Your task to perform on an android device: turn on sleep mode Image 0: 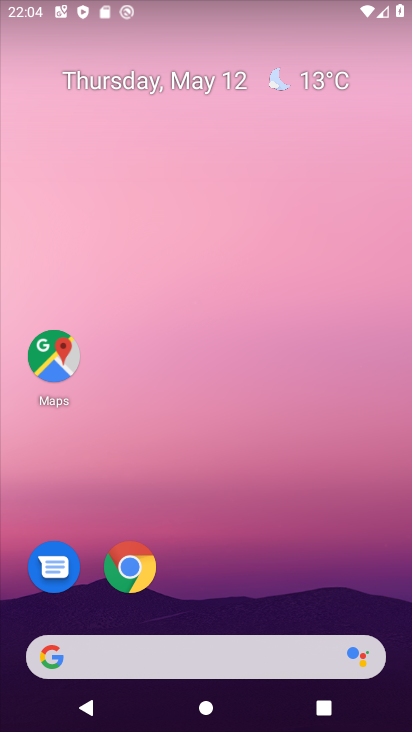
Step 0: click (227, 123)
Your task to perform on an android device: turn on sleep mode Image 1: 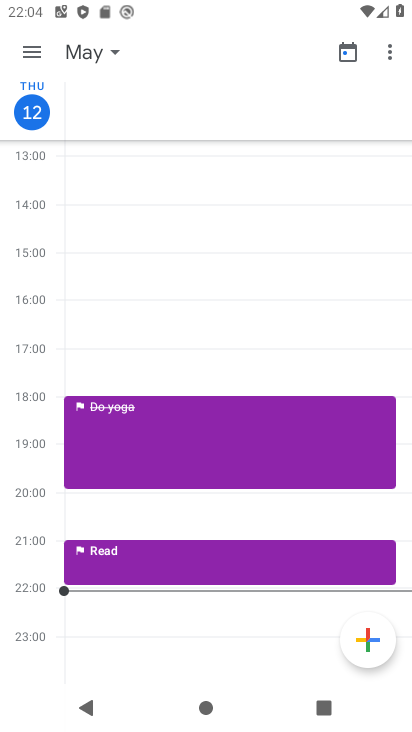
Step 1: press home button
Your task to perform on an android device: turn on sleep mode Image 2: 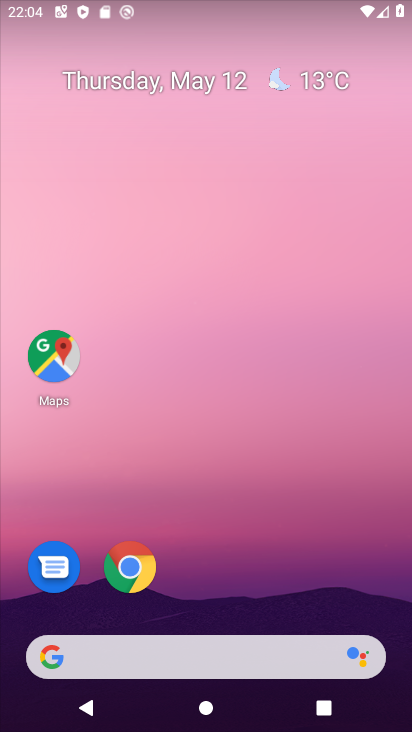
Step 2: drag from (239, 600) to (251, 47)
Your task to perform on an android device: turn on sleep mode Image 3: 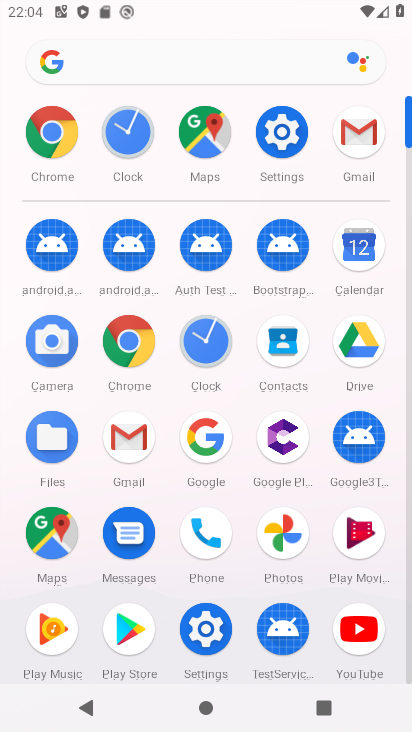
Step 3: click (290, 121)
Your task to perform on an android device: turn on sleep mode Image 4: 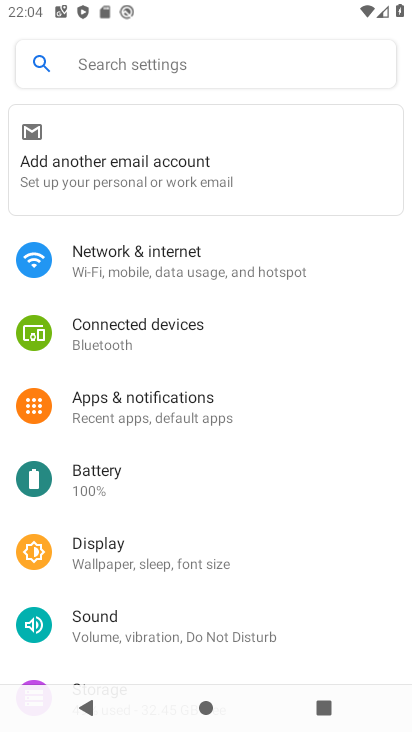
Step 4: click (122, 561)
Your task to perform on an android device: turn on sleep mode Image 5: 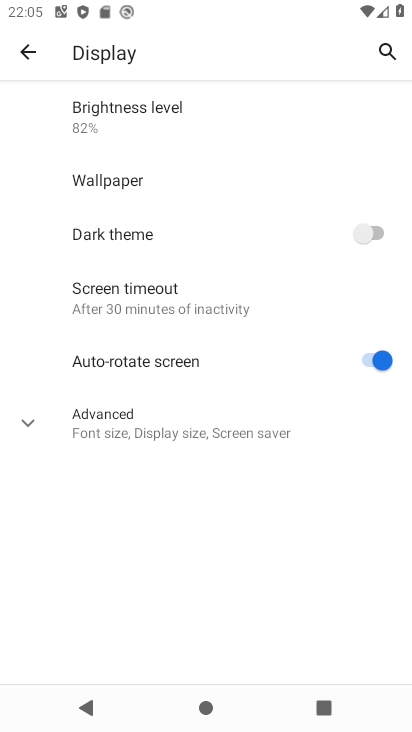
Step 5: click (37, 425)
Your task to perform on an android device: turn on sleep mode Image 6: 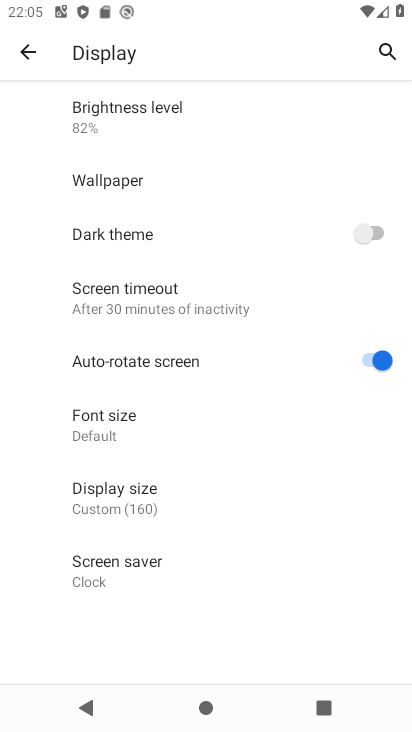
Step 6: task complete